Your task to perform on an android device: Toggle the flashlight Image 0: 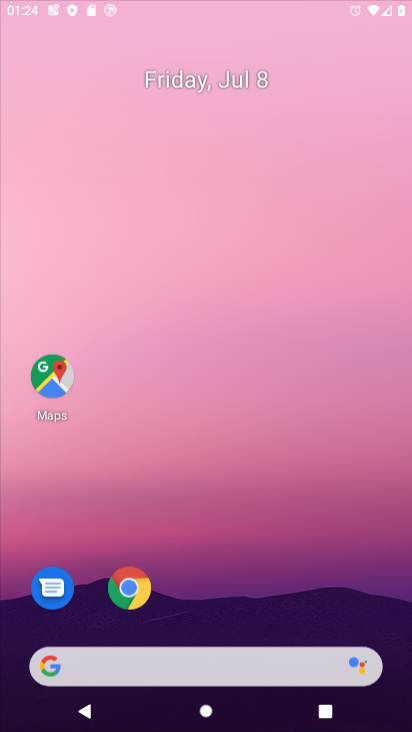
Step 0: click (253, 98)
Your task to perform on an android device: Toggle the flashlight Image 1: 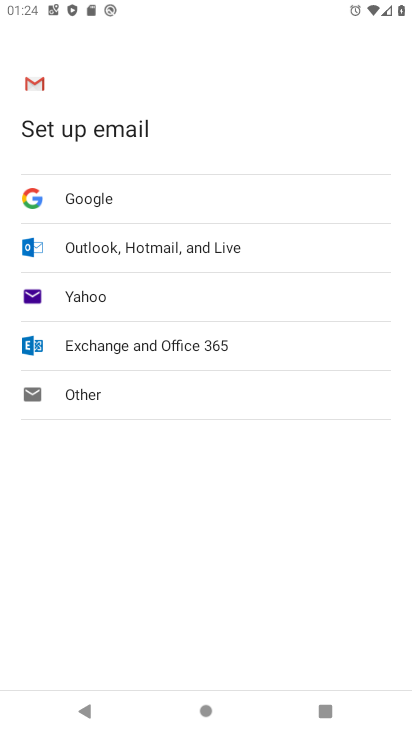
Step 1: press home button
Your task to perform on an android device: Toggle the flashlight Image 2: 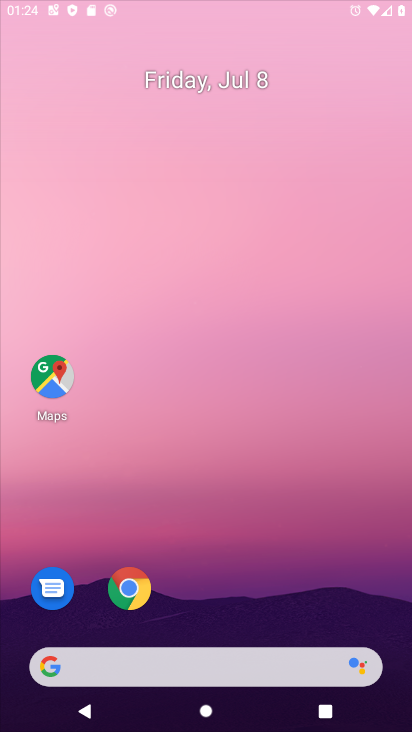
Step 2: drag from (267, 596) to (292, 201)
Your task to perform on an android device: Toggle the flashlight Image 3: 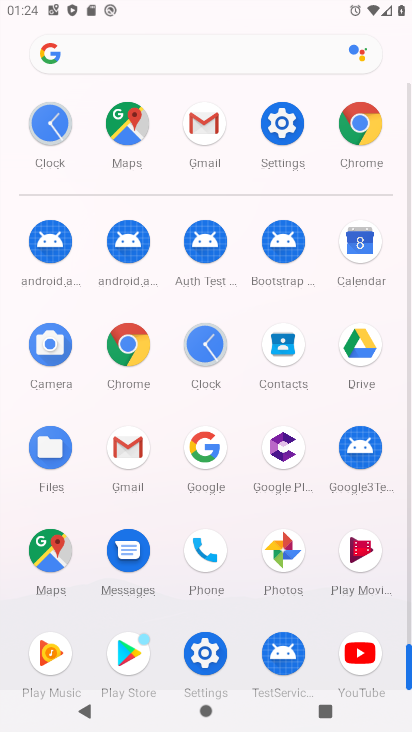
Step 3: click (286, 129)
Your task to perform on an android device: Toggle the flashlight Image 4: 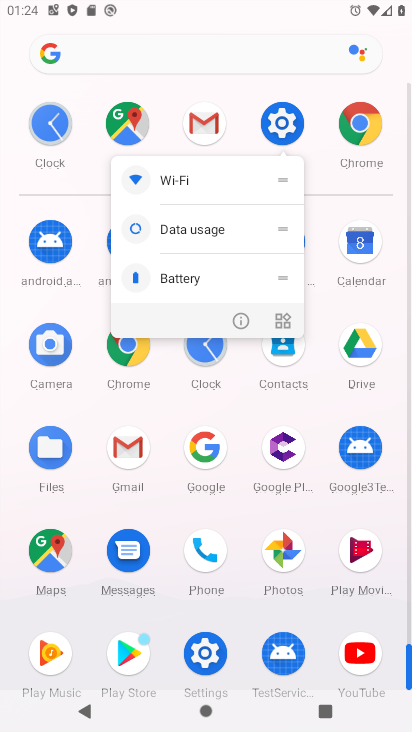
Step 4: click (244, 317)
Your task to perform on an android device: Toggle the flashlight Image 5: 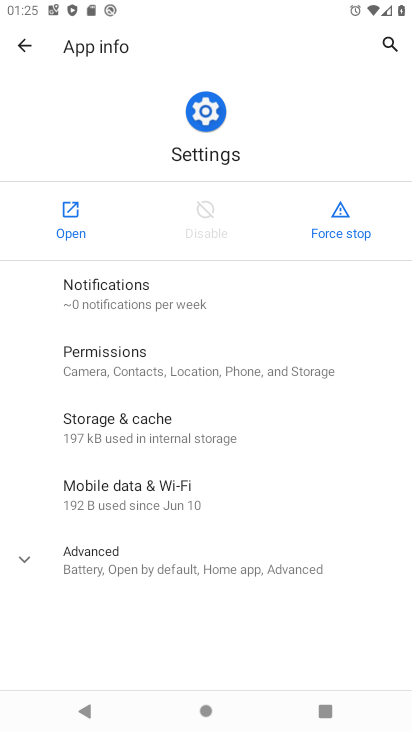
Step 5: click (66, 215)
Your task to perform on an android device: Toggle the flashlight Image 6: 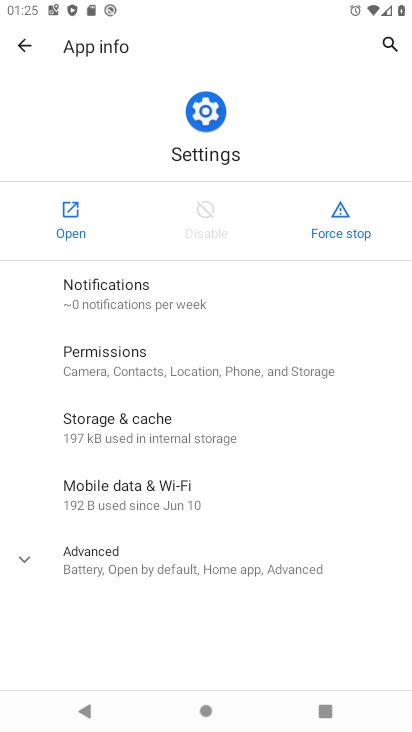
Step 6: click (66, 215)
Your task to perform on an android device: Toggle the flashlight Image 7: 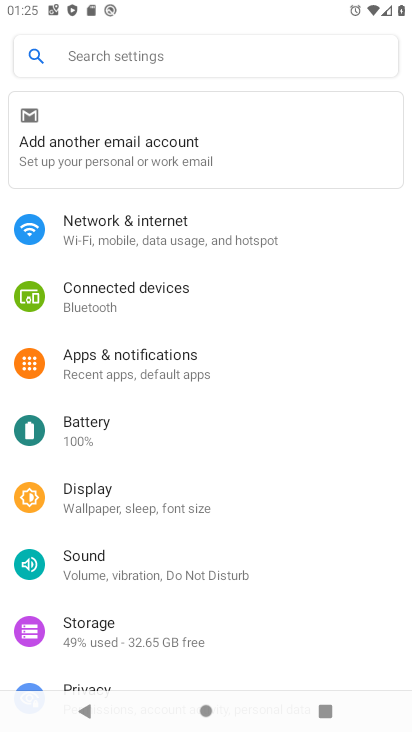
Step 7: drag from (157, 438) to (183, 102)
Your task to perform on an android device: Toggle the flashlight Image 8: 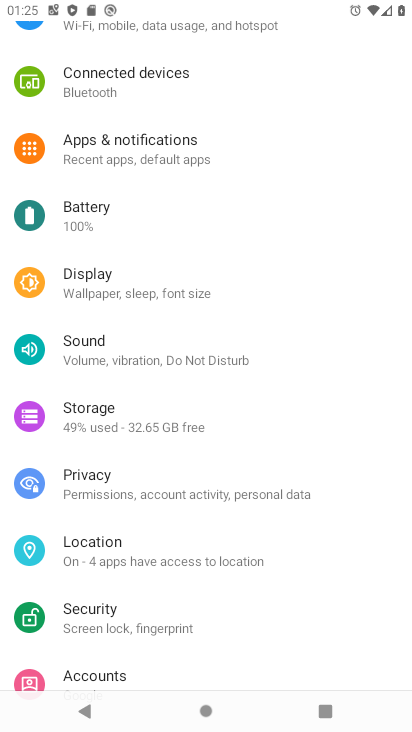
Step 8: drag from (178, 501) to (190, 235)
Your task to perform on an android device: Toggle the flashlight Image 9: 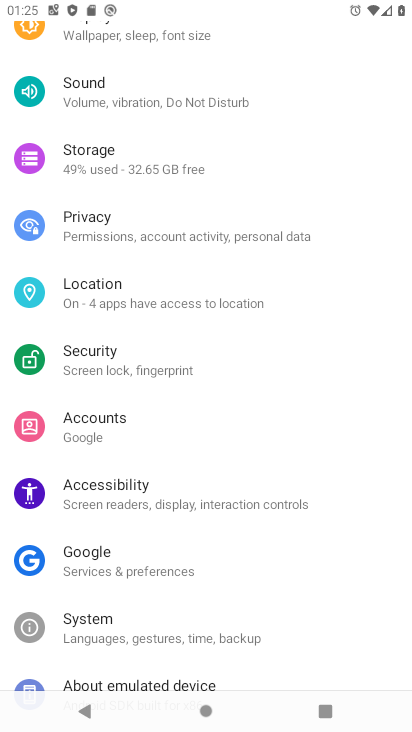
Step 9: drag from (224, 165) to (248, 510)
Your task to perform on an android device: Toggle the flashlight Image 10: 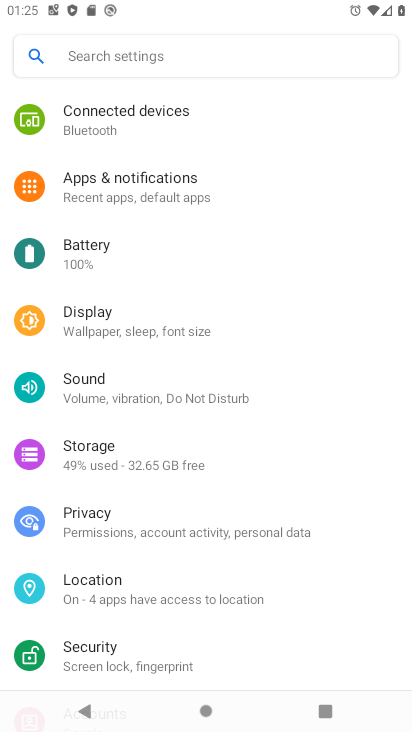
Step 10: drag from (194, 50) to (240, 643)
Your task to perform on an android device: Toggle the flashlight Image 11: 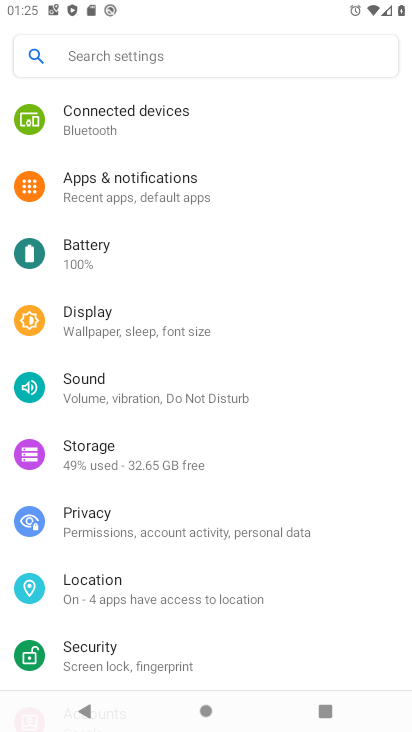
Step 11: click (170, 58)
Your task to perform on an android device: Toggle the flashlight Image 12: 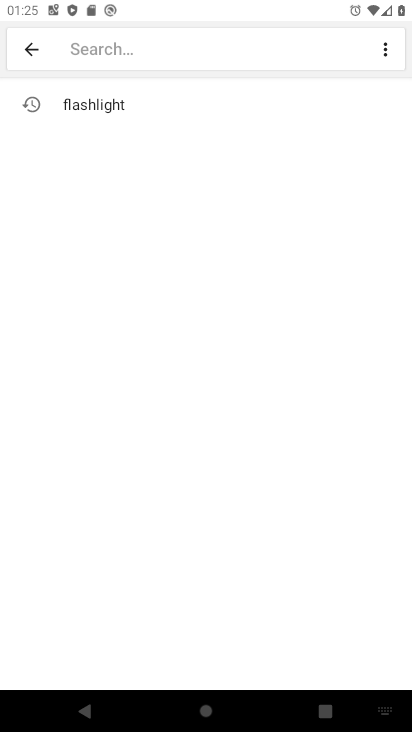
Step 12: click (135, 101)
Your task to perform on an android device: Toggle the flashlight Image 13: 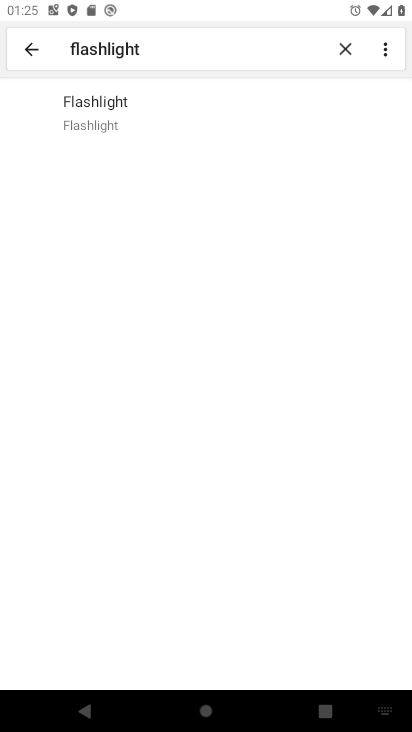
Step 13: click (135, 101)
Your task to perform on an android device: Toggle the flashlight Image 14: 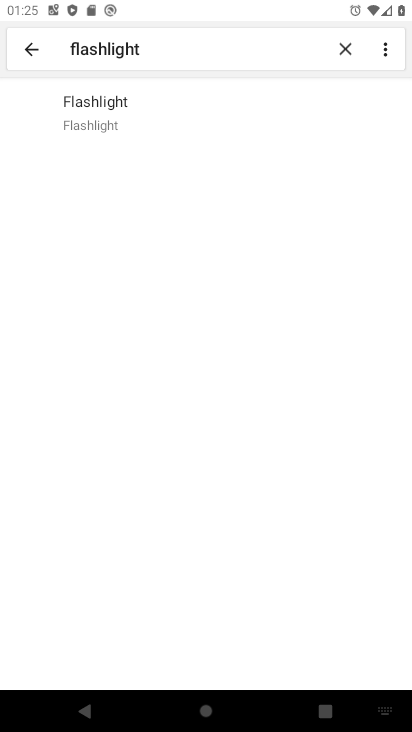
Step 14: click (162, 101)
Your task to perform on an android device: Toggle the flashlight Image 15: 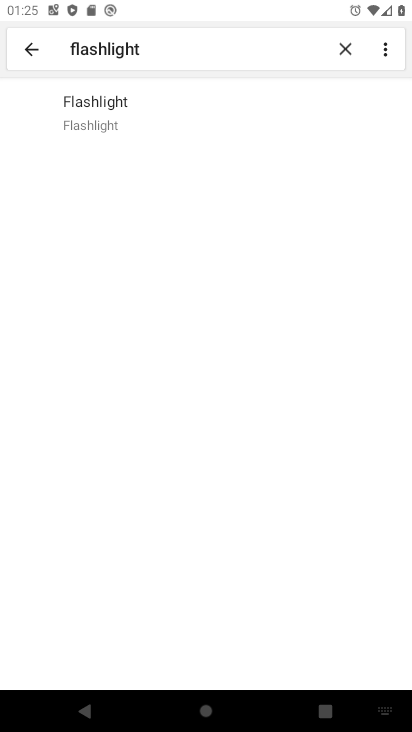
Step 15: task complete